Your task to perform on an android device: open wifi settings Image 0: 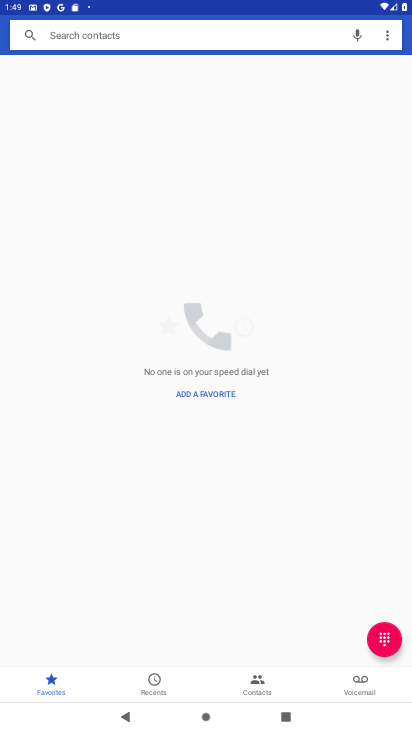
Step 0: press home button
Your task to perform on an android device: open wifi settings Image 1: 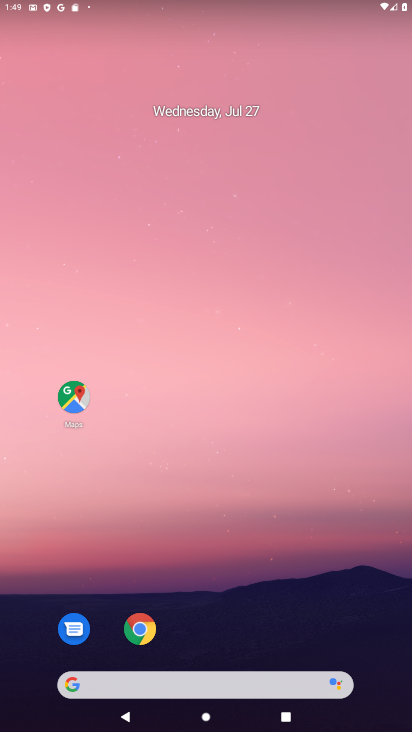
Step 1: drag from (281, 650) to (235, 323)
Your task to perform on an android device: open wifi settings Image 2: 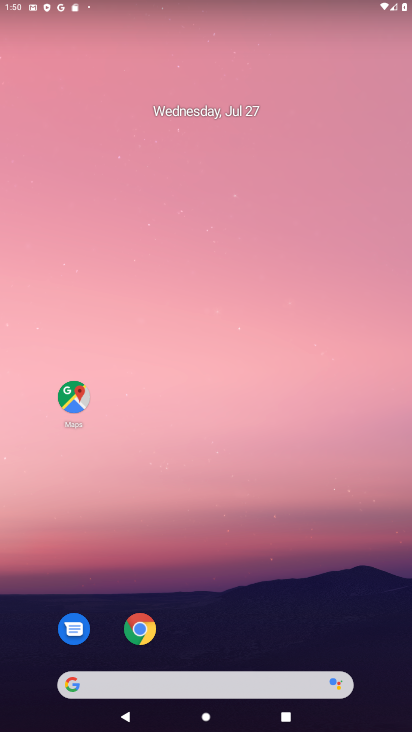
Step 2: drag from (254, 619) to (171, 7)
Your task to perform on an android device: open wifi settings Image 3: 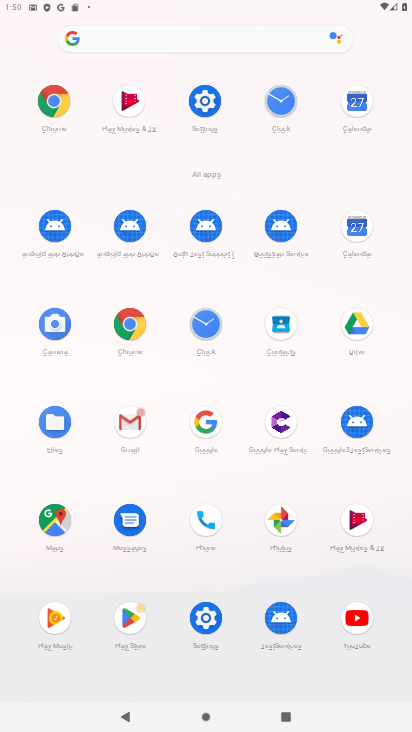
Step 3: click (212, 87)
Your task to perform on an android device: open wifi settings Image 4: 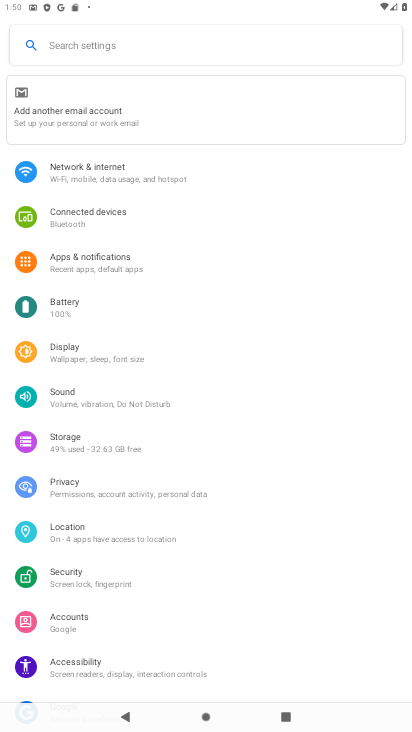
Step 4: click (199, 174)
Your task to perform on an android device: open wifi settings Image 5: 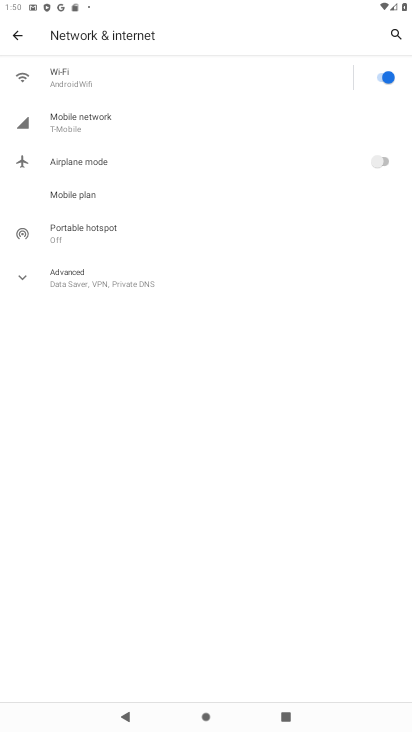
Step 5: click (82, 92)
Your task to perform on an android device: open wifi settings Image 6: 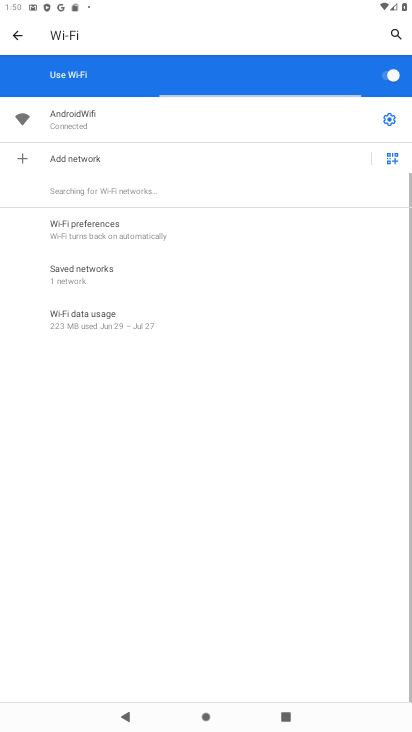
Step 6: task complete